Your task to perform on an android device: Search for vegetarian restaurants on Maps Image 0: 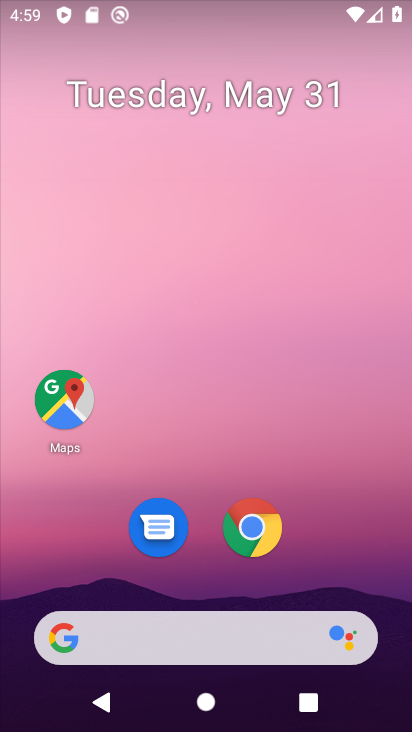
Step 0: drag from (326, 569) to (325, 80)
Your task to perform on an android device: Search for vegetarian restaurants on Maps Image 1: 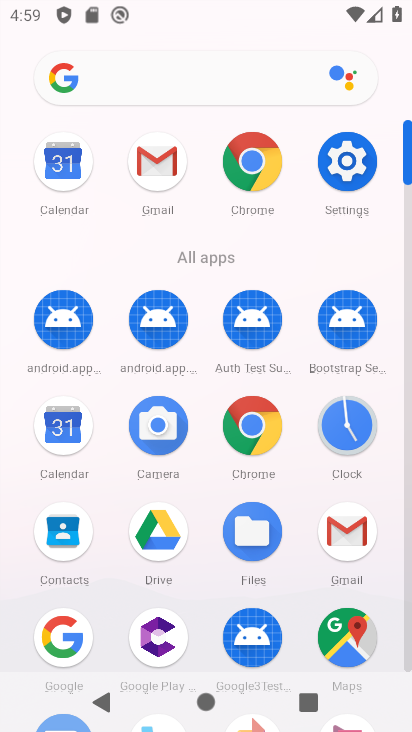
Step 1: click (253, 423)
Your task to perform on an android device: Search for vegetarian restaurants on Maps Image 2: 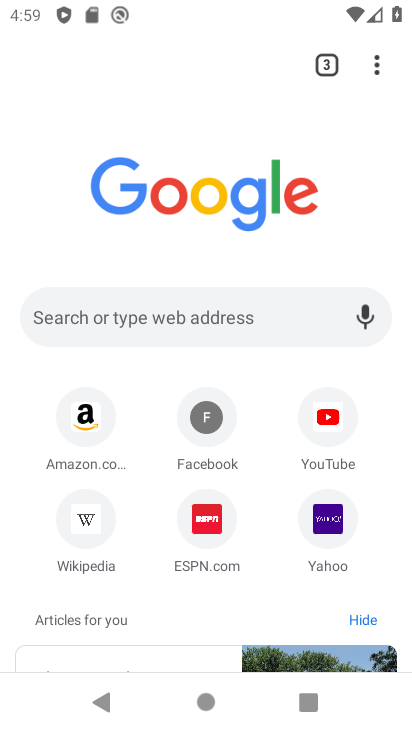
Step 2: click (219, 313)
Your task to perform on an android device: Search for vegetarian restaurants on Maps Image 3: 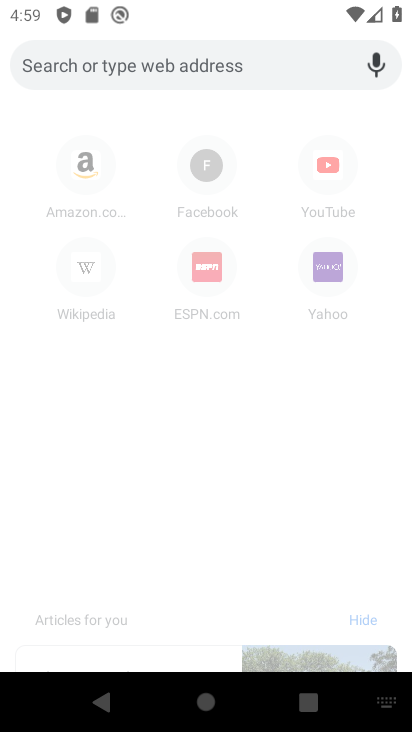
Step 3: press home button
Your task to perform on an android device: Search for vegetarian restaurants on Maps Image 4: 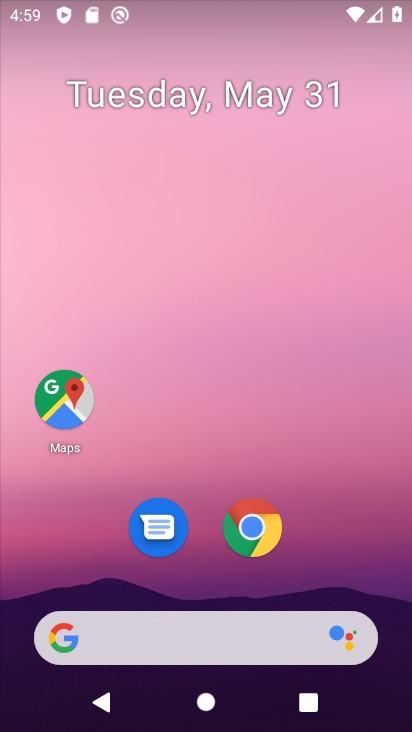
Step 4: click (71, 401)
Your task to perform on an android device: Search for vegetarian restaurants on Maps Image 5: 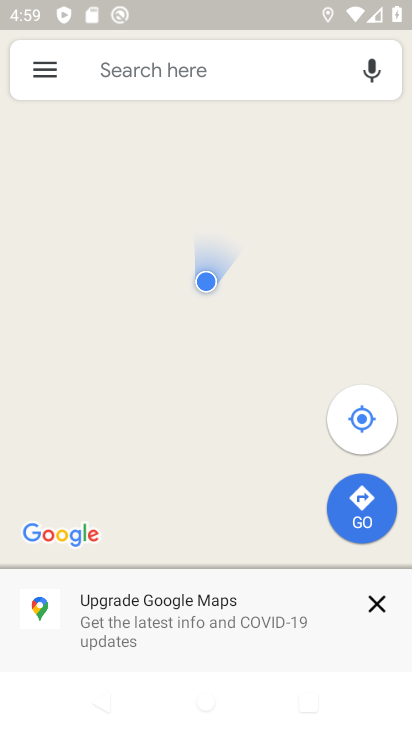
Step 5: click (154, 78)
Your task to perform on an android device: Search for vegetarian restaurants on Maps Image 6: 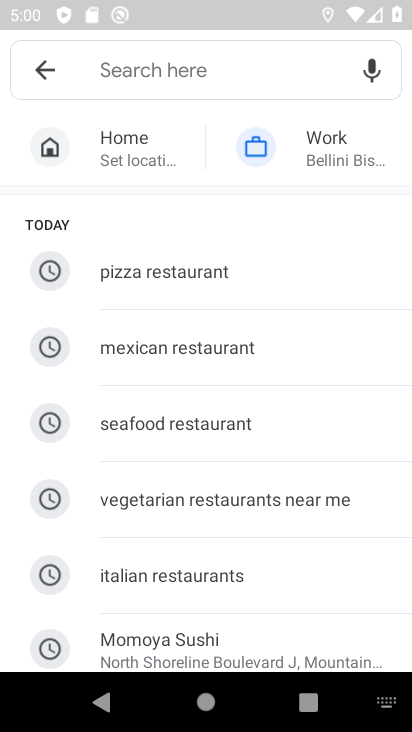
Step 6: type " vegetarian restaurants"
Your task to perform on an android device: Search for vegetarian restaurants on Maps Image 7: 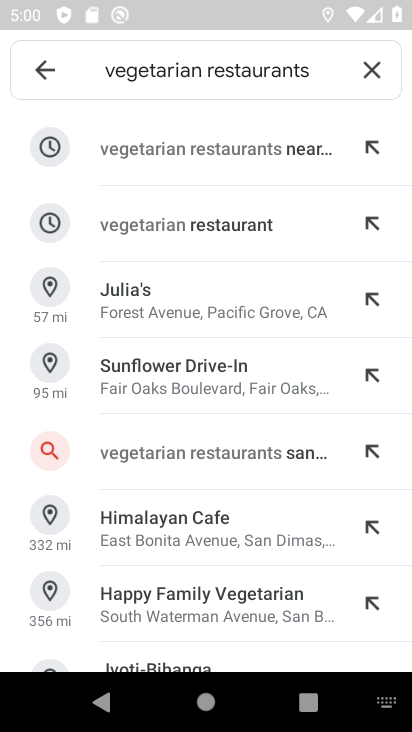
Step 7: click (238, 232)
Your task to perform on an android device: Search for vegetarian restaurants on Maps Image 8: 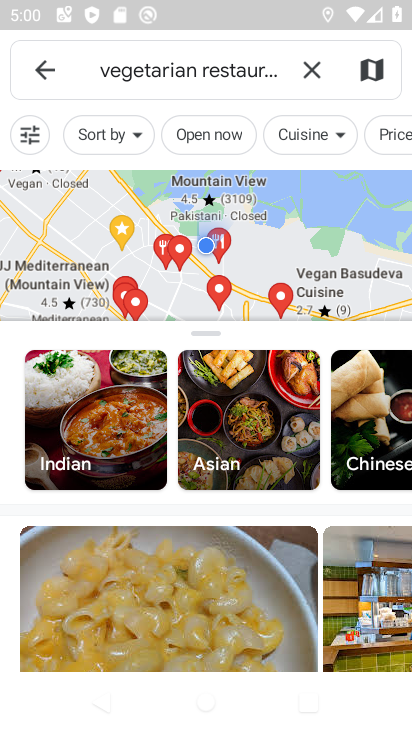
Step 8: task complete